Your task to perform on an android device: toggle sleep mode Image 0: 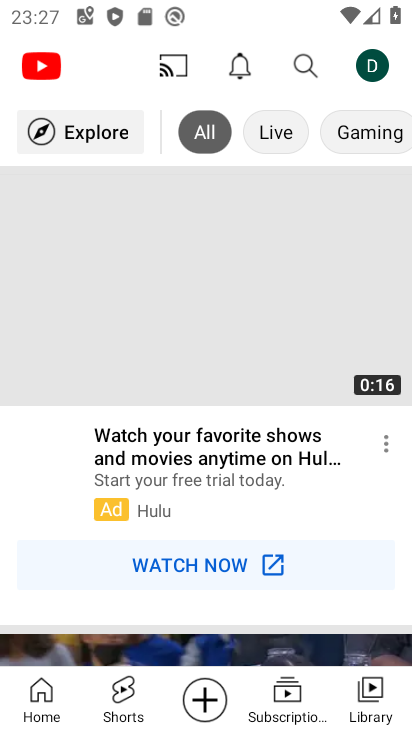
Step 0: press home button
Your task to perform on an android device: toggle sleep mode Image 1: 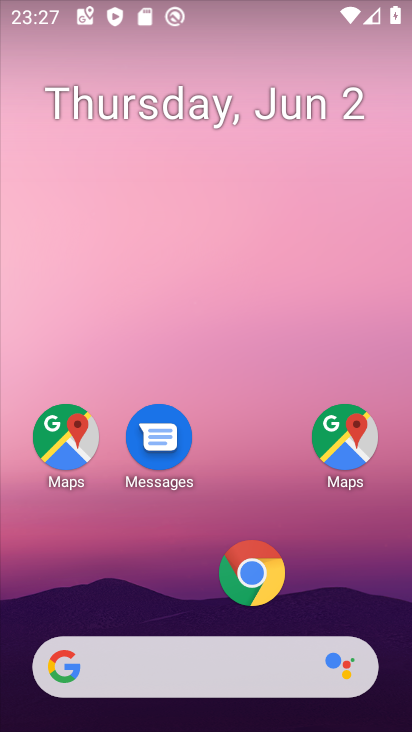
Step 1: drag from (176, 564) to (314, 77)
Your task to perform on an android device: toggle sleep mode Image 2: 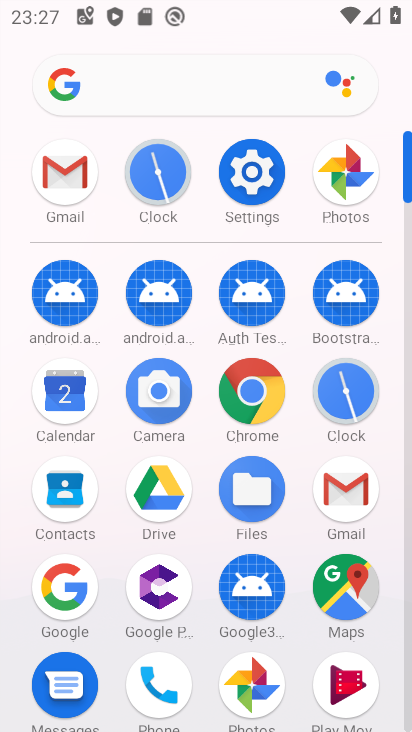
Step 2: click (240, 158)
Your task to perform on an android device: toggle sleep mode Image 3: 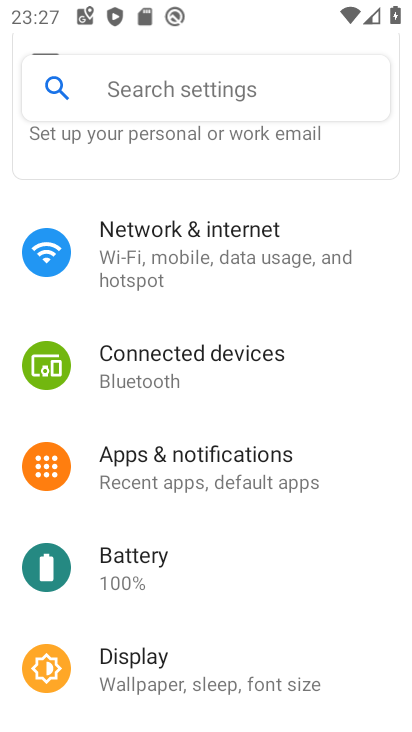
Step 3: click (126, 649)
Your task to perform on an android device: toggle sleep mode Image 4: 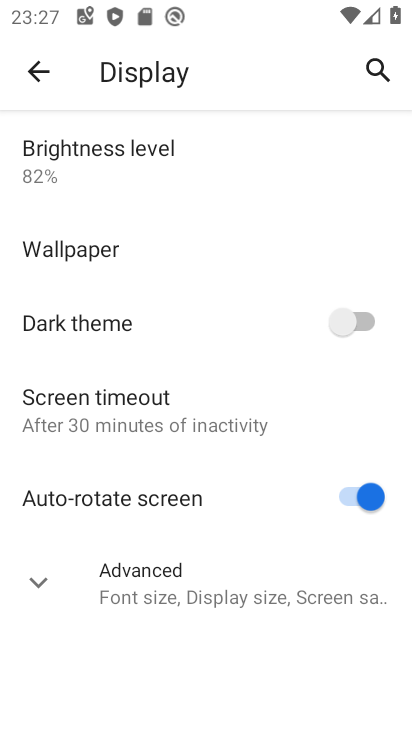
Step 4: click (148, 542)
Your task to perform on an android device: toggle sleep mode Image 5: 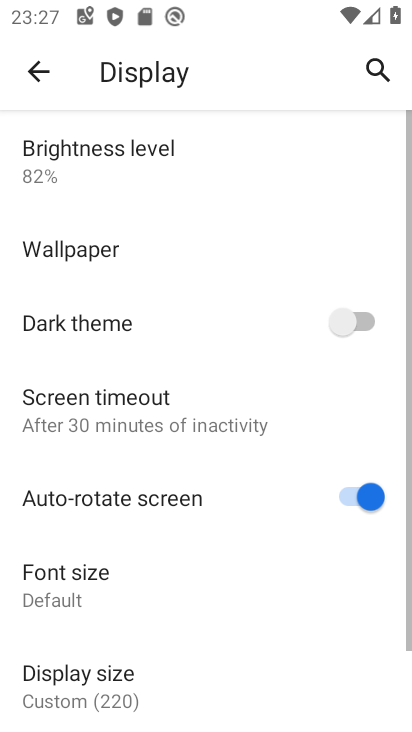
Step 5: task complete